Your task to perform on an android device: Go to internet settings Image 0: 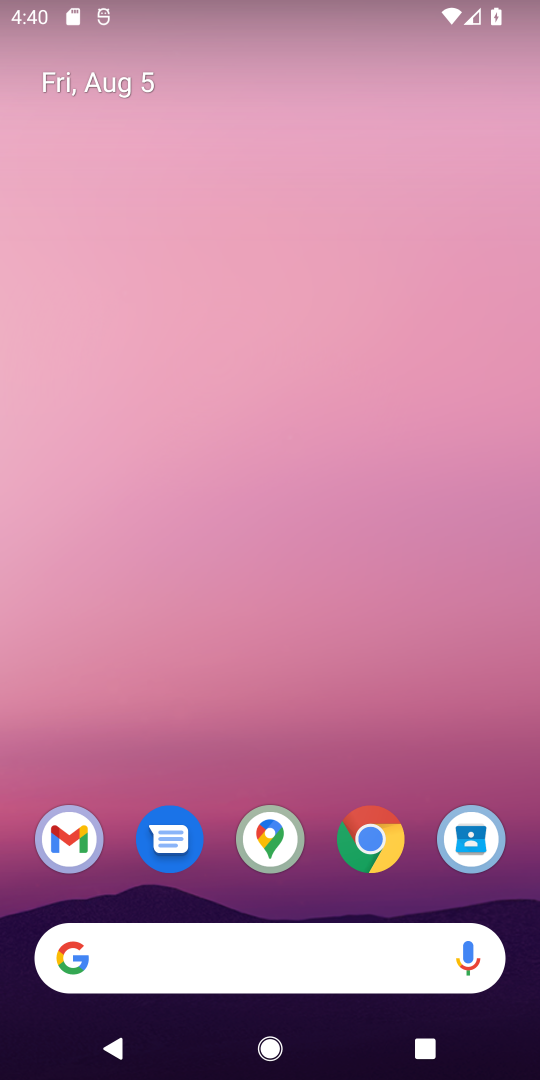
Step 0: drag from (296, 768) to (307, 5)
Your task to perform on an android device: Go to internet settings Image 1: 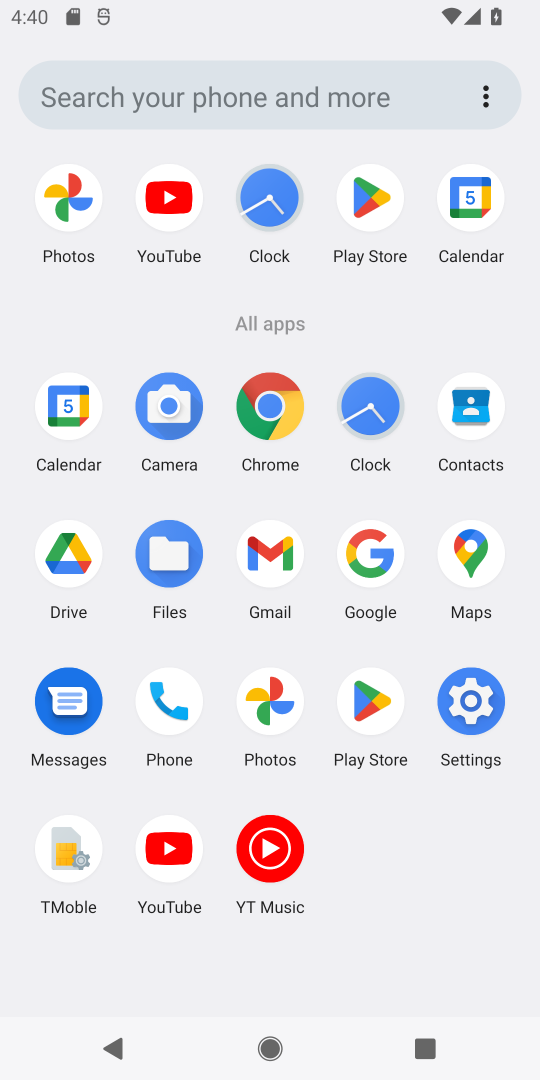
Step 1: click (487, 720)
Your task to perform on an android device: Go to internet settings Image 2: 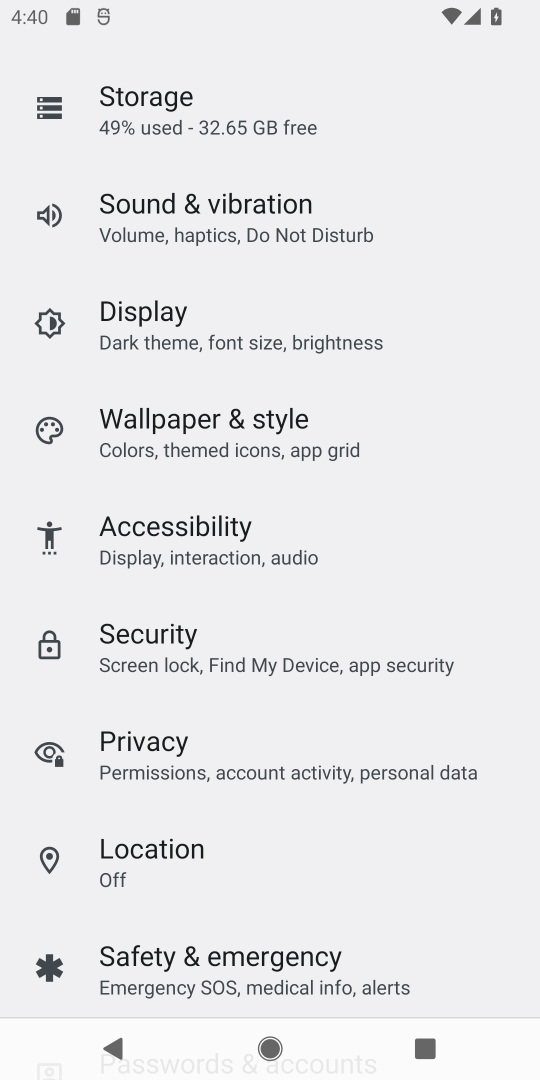
Step 2: drag from (241, 252) to (240, 925)
Your task to perform on an android device: Go to internet settings Image 3: 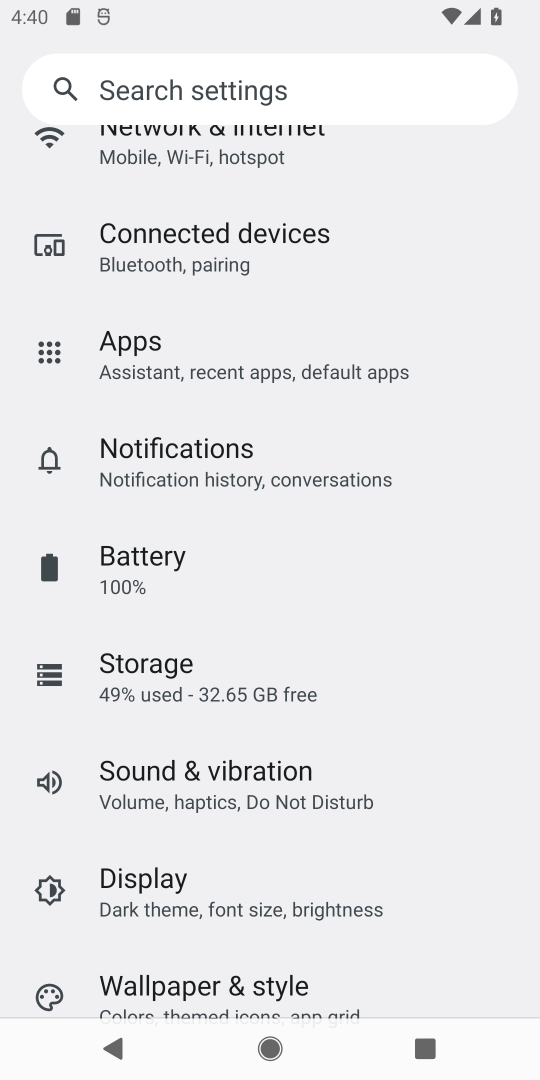
Step 3: click (259, 172)
Your task to perform on an android device: Go to internet settings Image 4: 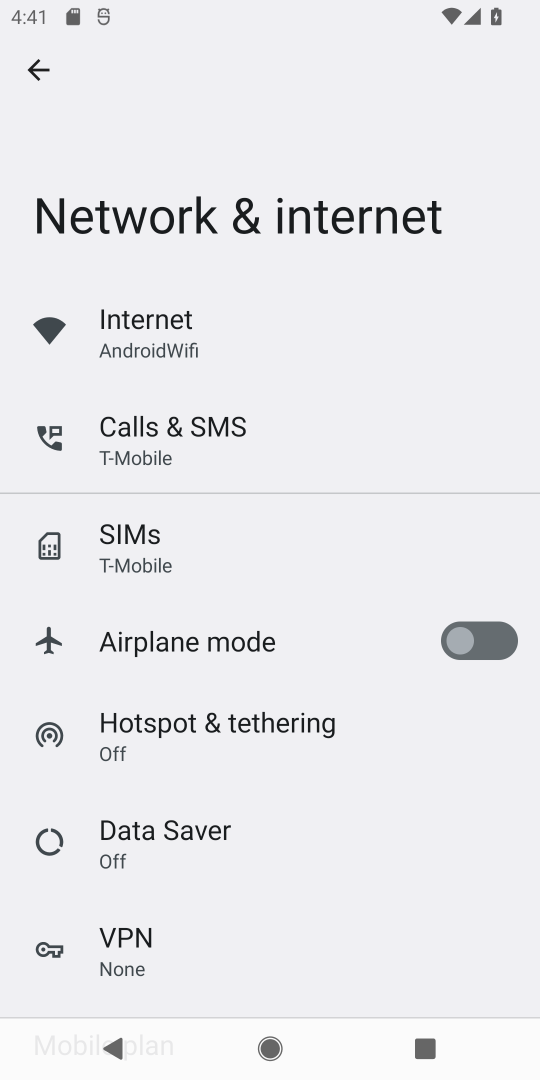
Step 4: click (210, 341)
Your task to perform on an android device: Go to internet settings Image 5: 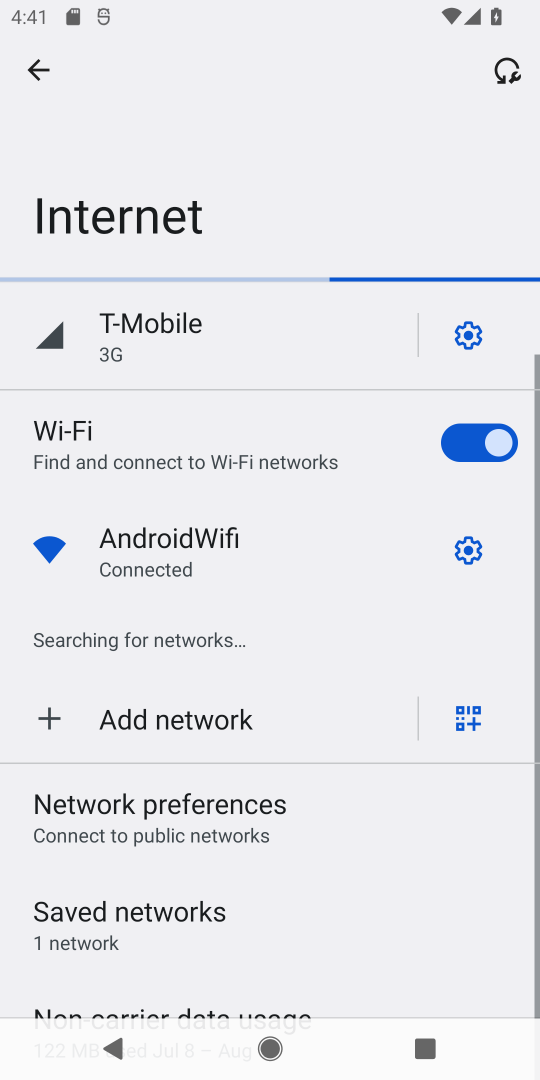
Step 5: task complete